Your task to perform on an android device: set default search engine in the chrome app Image 0: 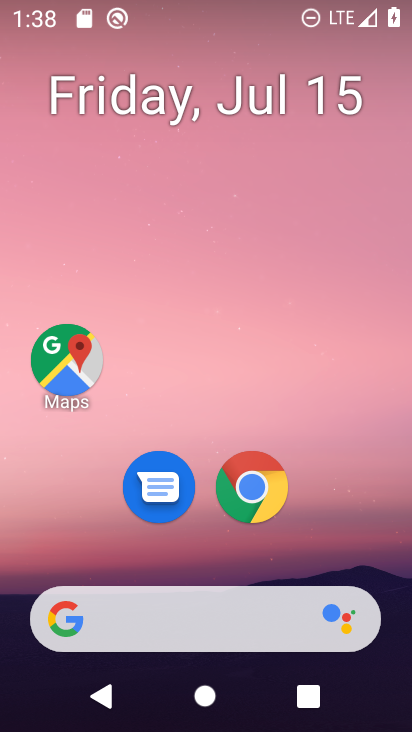
Step 0: drag from (266, 293) to (323, 52)
Your task to perform on an android device: set default search engine in the chrome app Image 1: 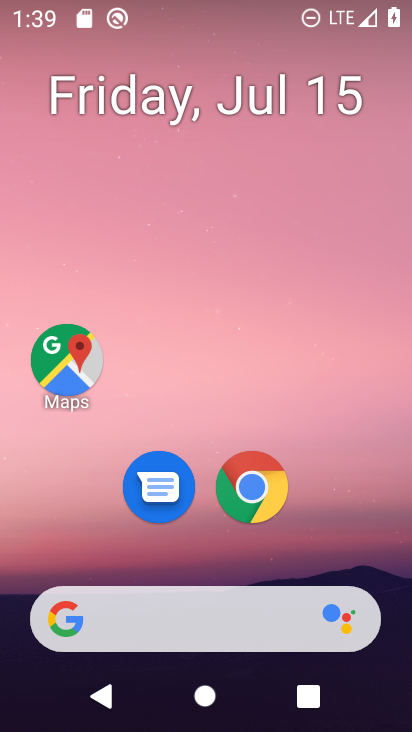
Step 1: drag from (206, 704) to (396, 179)
Your task to perform on an android device: set default search engine in the chrome app Image 2: 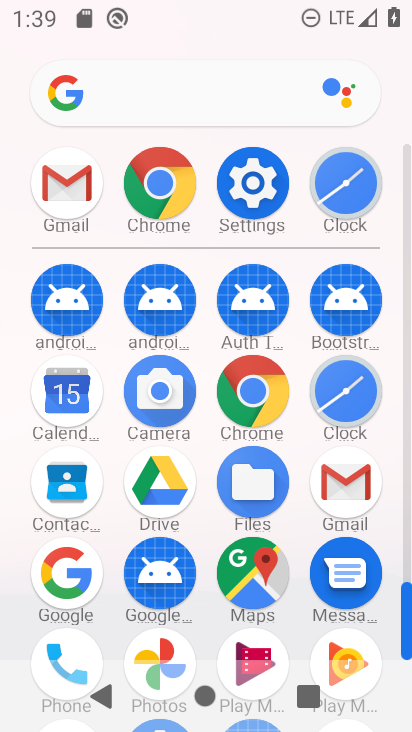
Step 2: click (176, 201)
Your task to perform on an android device: set default search engine in the chrome app Image 3: 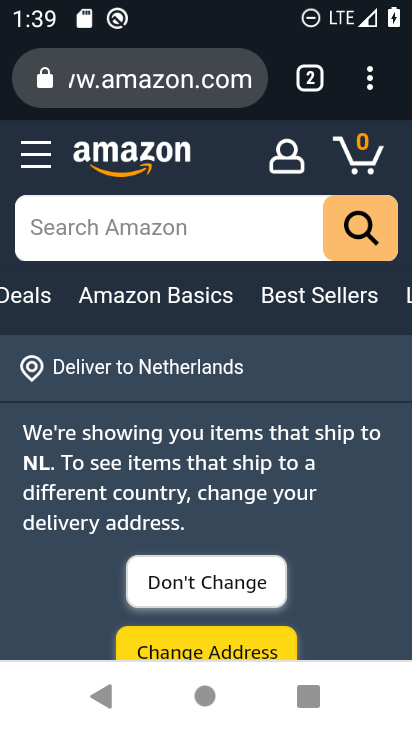
Step 3: click (365, 92)
Your task to perform on an android device: set default search engine in the chrome app Image 4: 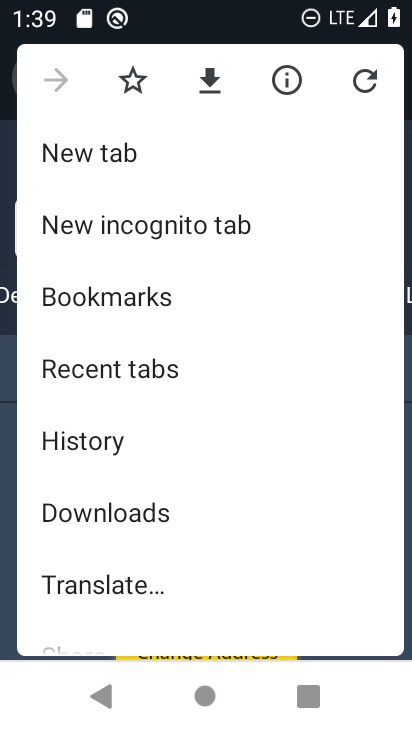
Step 4: drag from (192, 460) to (260, 120)
Your task to perform on an android device: set default search engine in the chrome app Image 5: 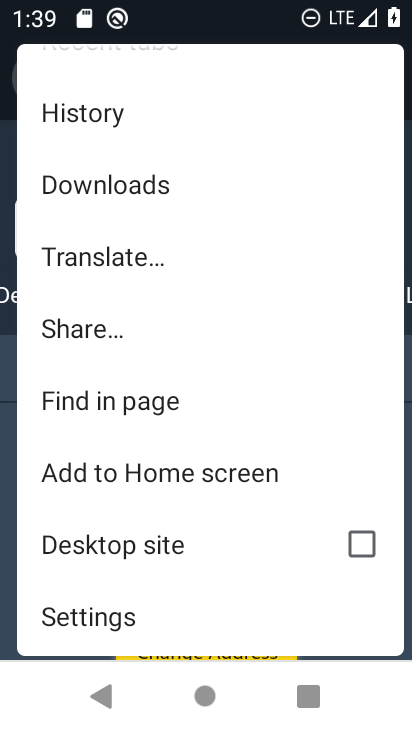
Step 5: click (76, 616)
Your task to perform on an android device: set default search engine in the chrome app Image 6: 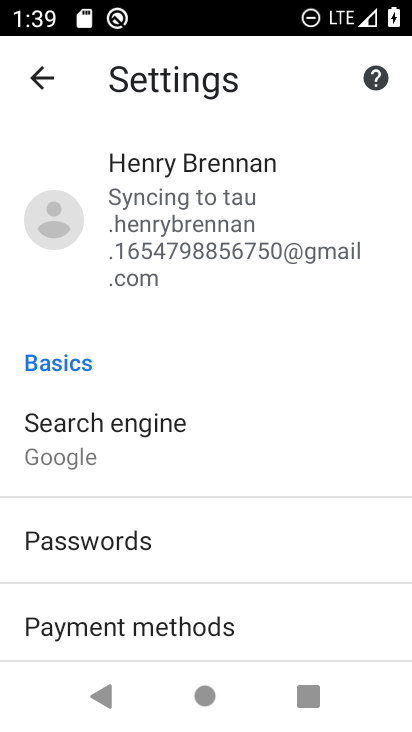
Step 6: click (137, 457)
Your task to perform on an android device: set default search engine in the chrome app Image 7: 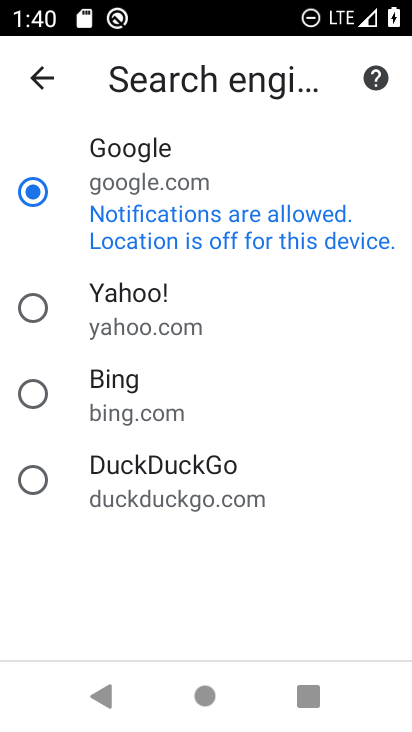
Step 7: task complete